Your task to perform on an android device: open a new tab in the chrome app Image 0: 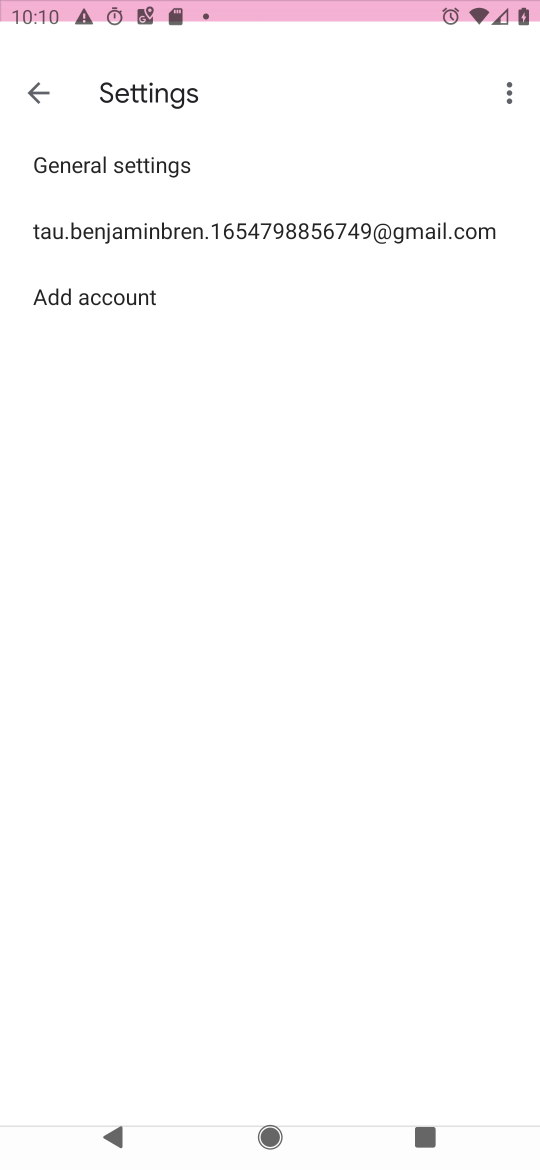
Step 0: press home button
Your task to perform on an android device: open a new tab in the chrome app Image 1: 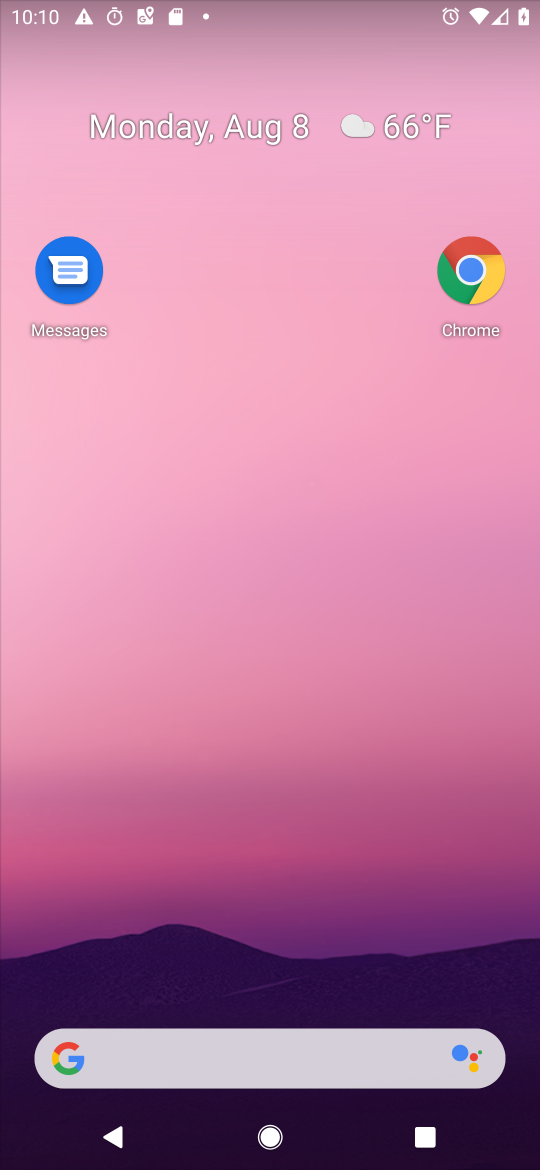
Step 1: drag from (243, 966) to (217, 137)
Your task to perform on an android device: open a new tab in the chrome app Image 2: 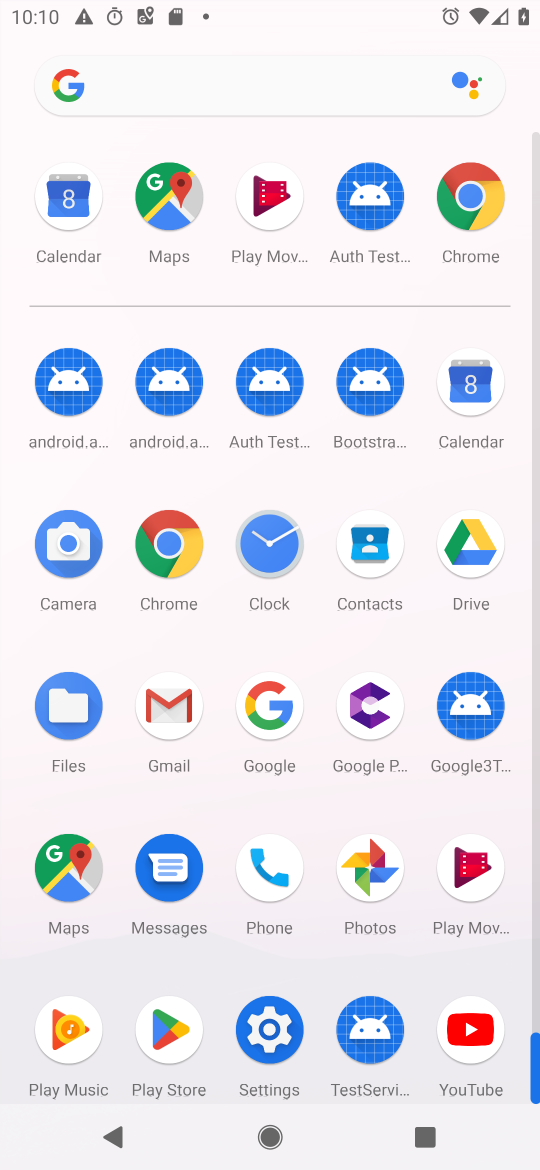
Step 2: click (210, 88)
Your task to perform on an android device: open a new tab in the chrome app Image 3: 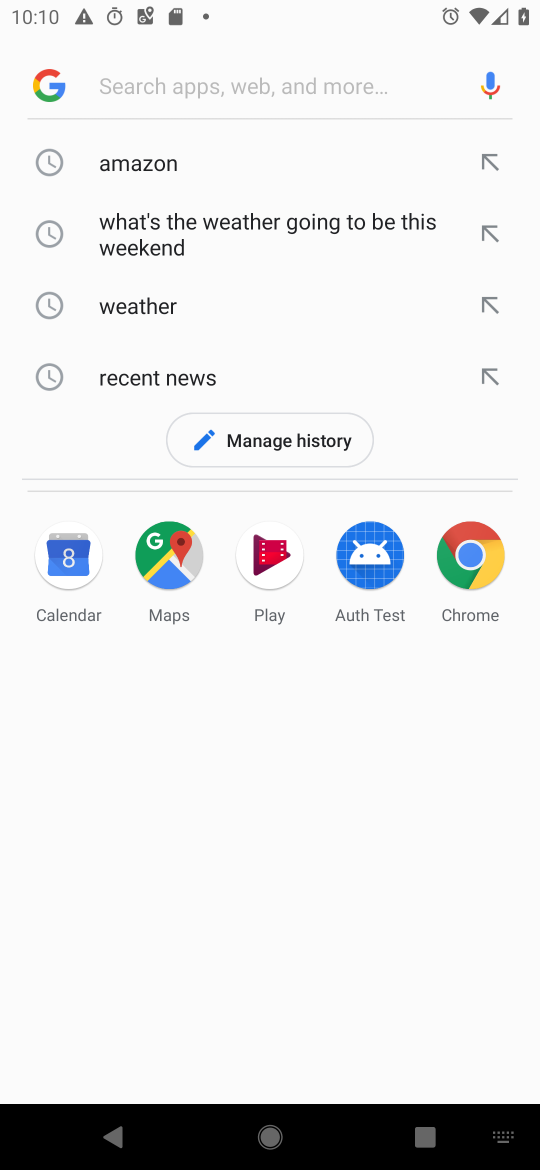
Step 3: click (477, 565)
Your task to perform on an android device: open a new tab in the chrome app Image 4: 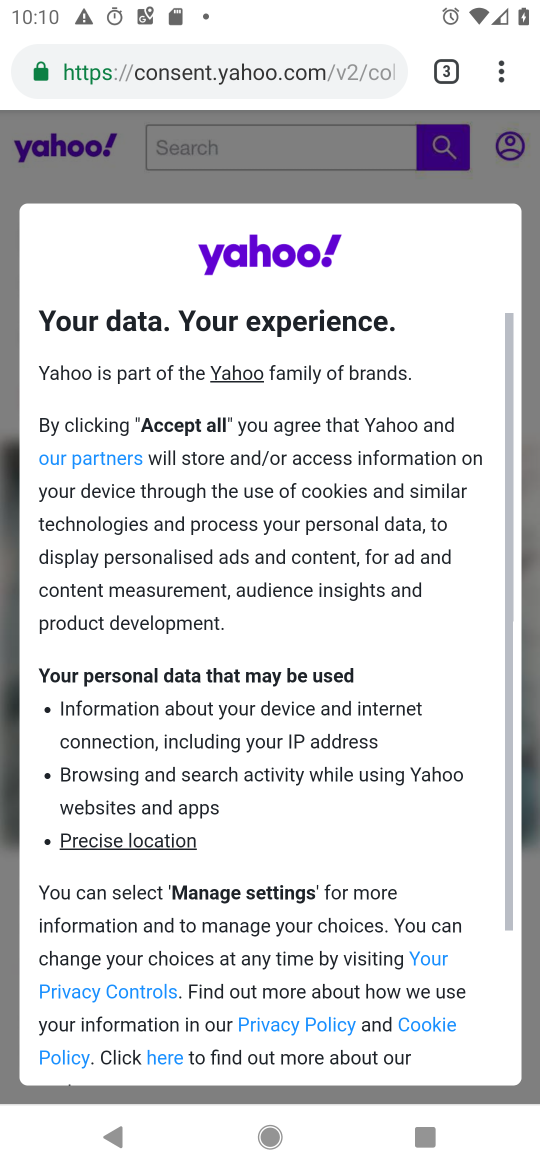
Step 4: task complete